Your task to perform on an android device: Go to Google maps Image 0: 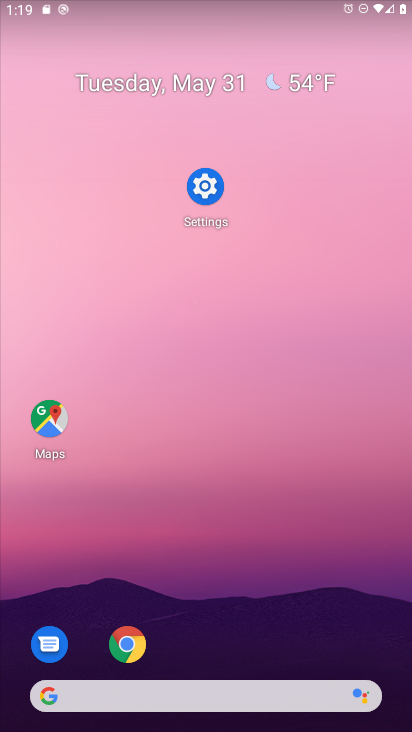
Step 0: press home button
Your task to perform on an android device: Go to Google maps Image 1: 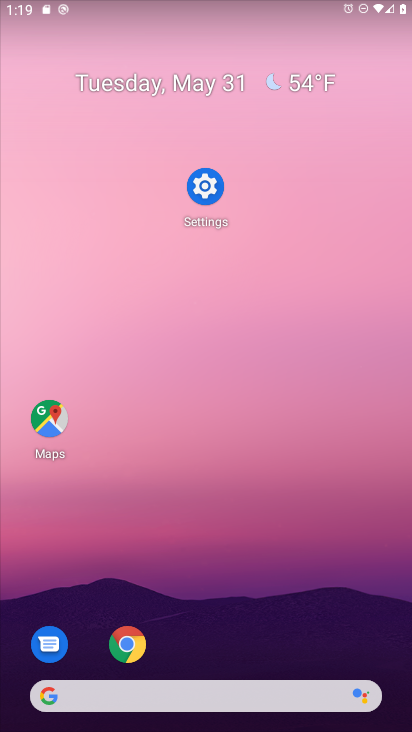
Step 1: click (48, 418)
Your task to perform on an android device: Go to Google maps Image 2: 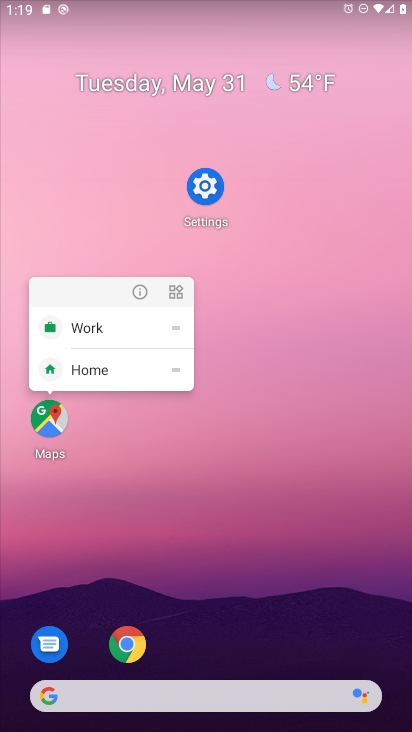
Step 2: click (49, 421)
Your task to perform on an android device: Go to Google maps Image 3: 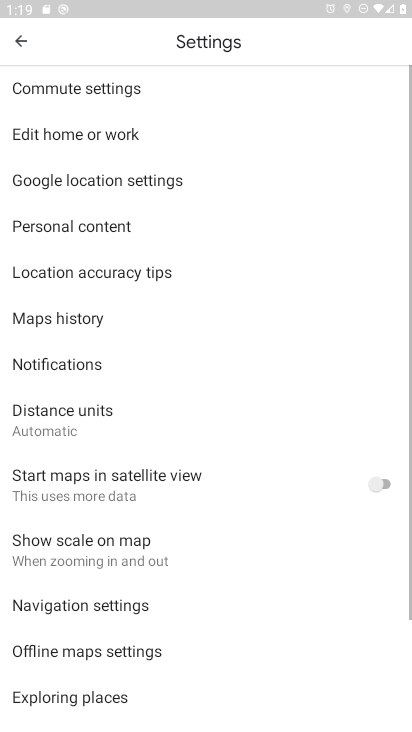
Step 3: click (23, 46)
Your task to perform on an android device: Go to Google maps Image 4: 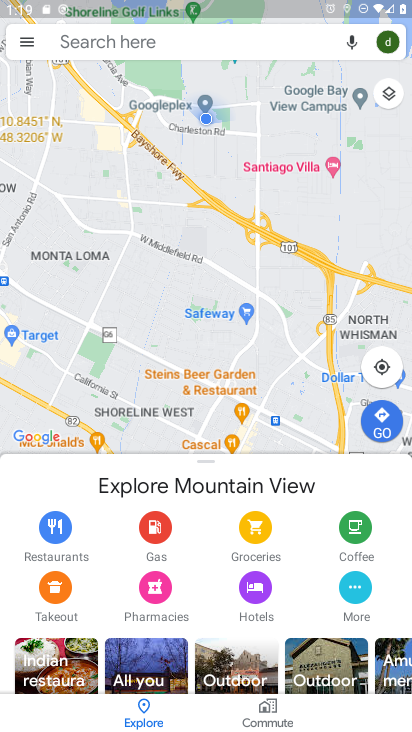
Step 4: task complete